Your task to perform on an android device: clear all cookies in the chrome app Image 0: 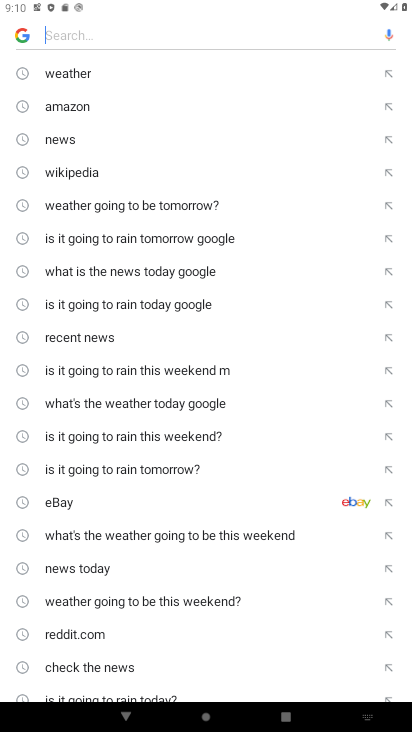
Step 0: press home button
Your task to perform on an android device: clear all cookies in the chrome app Image 1: 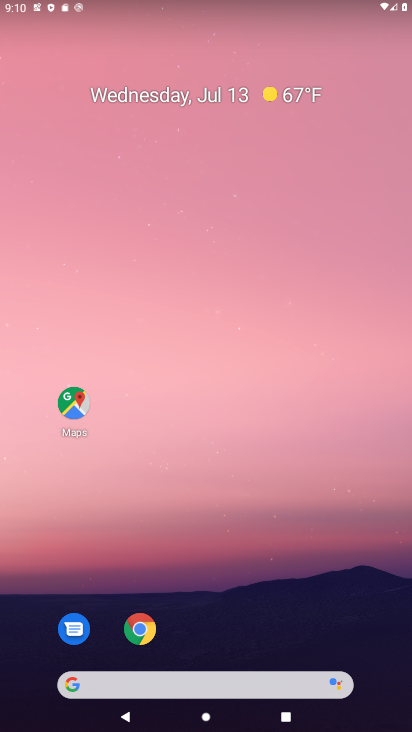
Step 1: click (146, 634)
Your task to perform on an android device: clear all cookies in the chrome app Image 2: 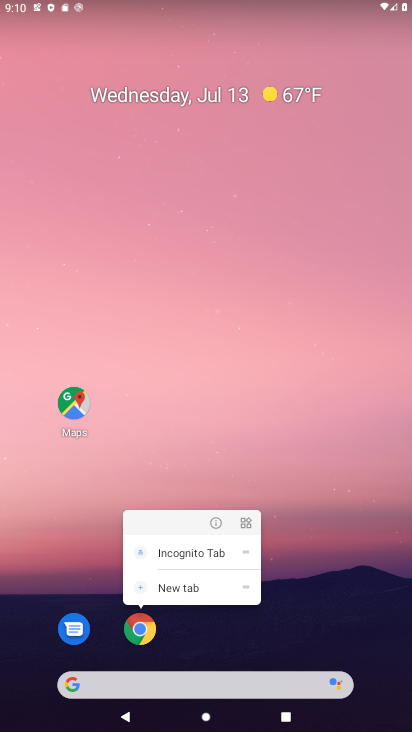
Step 2: click (135, 628)
Your task to perform on an android device: clear all cookies in the chrome app Image 3: 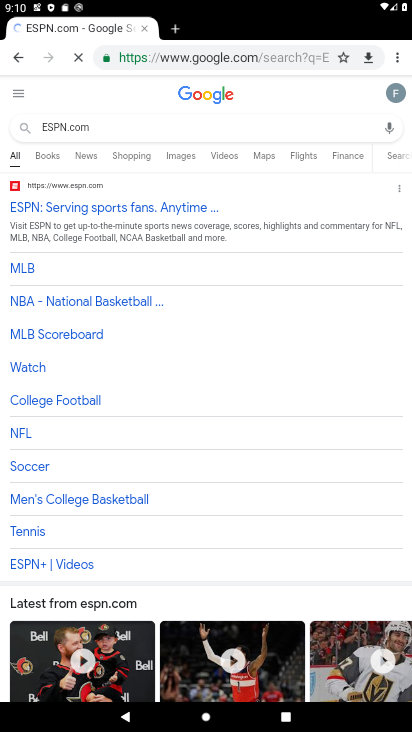
Step 3: click (396, 54)
Your task to perform on an android device: clear all cookies in the chrome app Image 4: 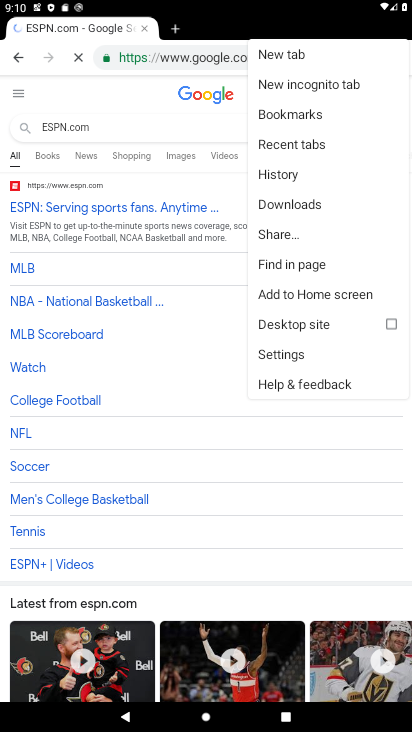
Step 4: click (283, 173)
Your task to perform on an android device: clear all cookies in the chrome app Image 5: 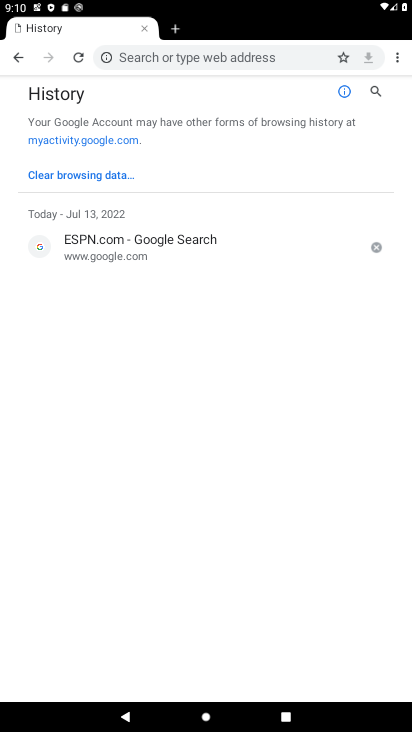
Step 5: click (98, 174)
Your task to perform on an android device: clear all cookies in the chrome app Image 6: 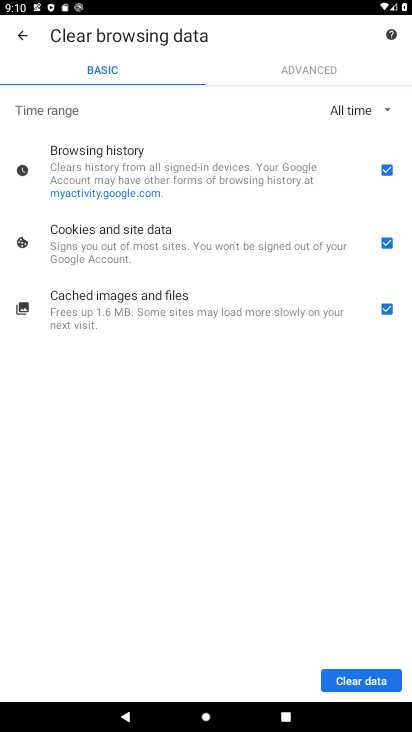
Step 6: click (389, 312)
Your task to perform on an android device: clear all cookies in the chrome app Image 7: 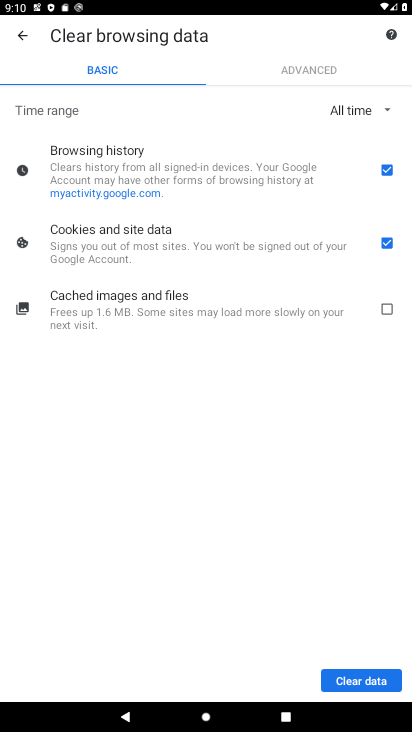
Step 7: click (389, 168)
Your task to perform on an android device: clear all cookies in the chrome app Image 8: 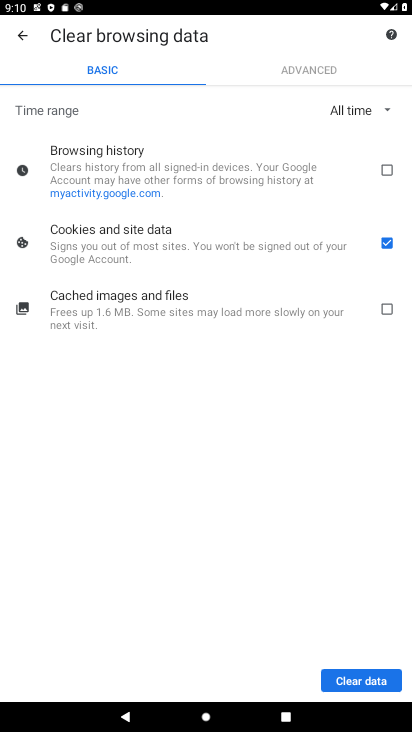
Step 8: click (358, 678)
Your task to perform on an android device: clear all cookies in the chrome app Image 9: 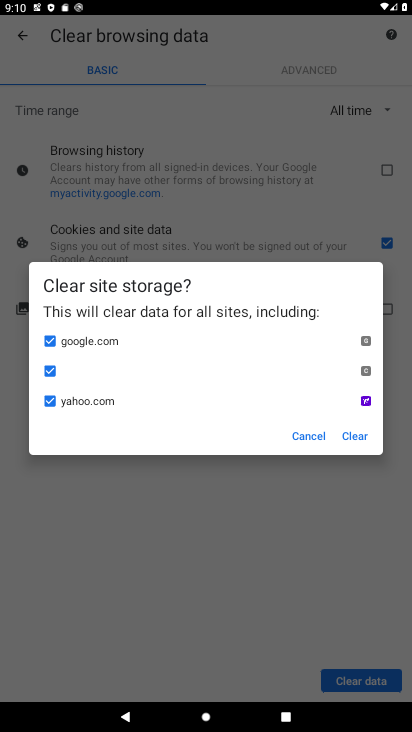
Step 9: click (360, 430)
Your task to perform on an android device: clear all cookies in the chrome app Image 10: 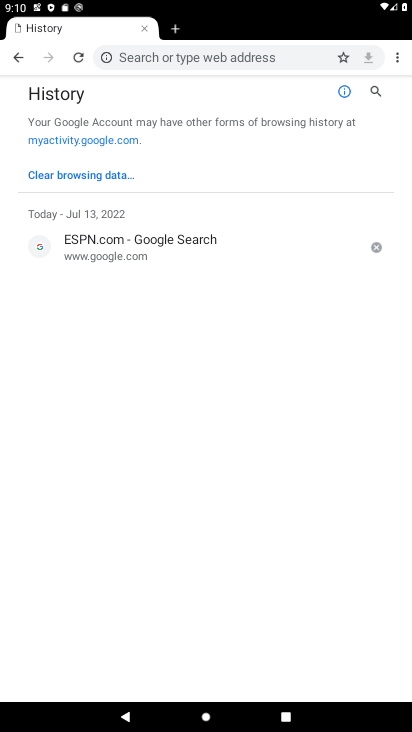
Step 10: task complete